Your task to perform on an android device: Open Amazon Image 0: 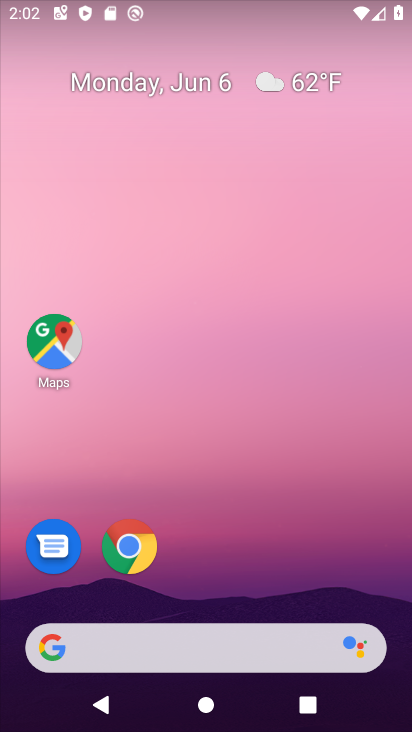
Step 0: click (132, 549)
Your task to perform on an android device: Open Amazon Image 1: 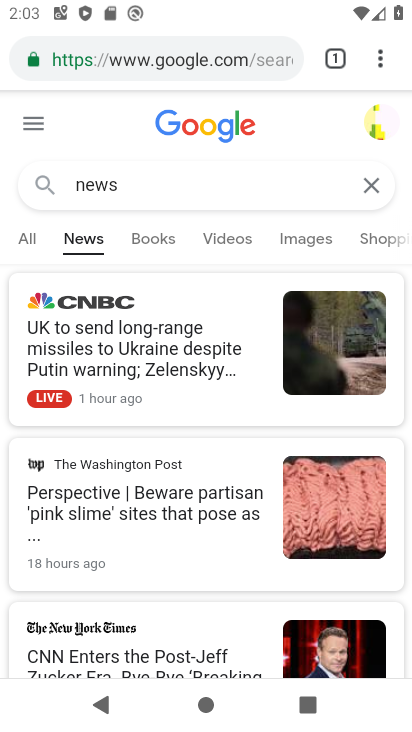
Step 1: click (193, 51)
Your task to perform on an android device: Open Amazon Image 2: 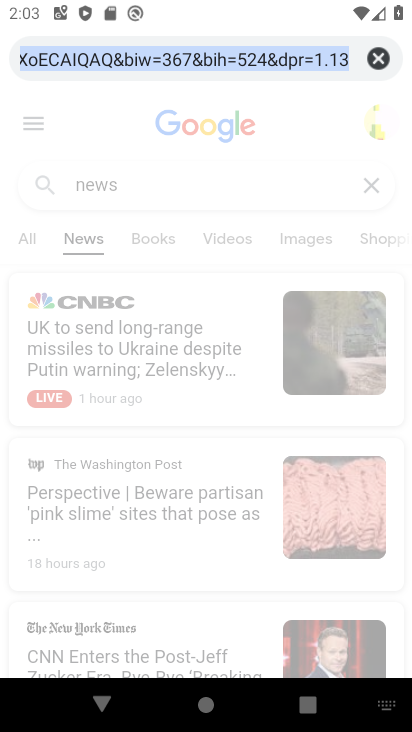
Step 2: type "amazon"
Your task to perform on an android device: Open Amazon Image 3: 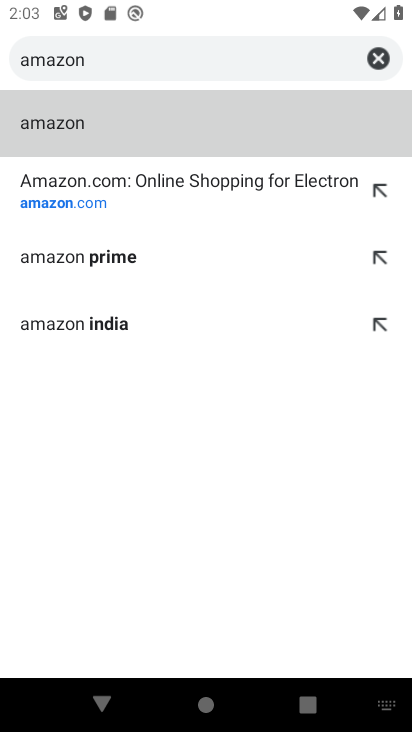
Step 3: click (96, 205)
Your task to perform on an android device: Open Amazon Image 4: 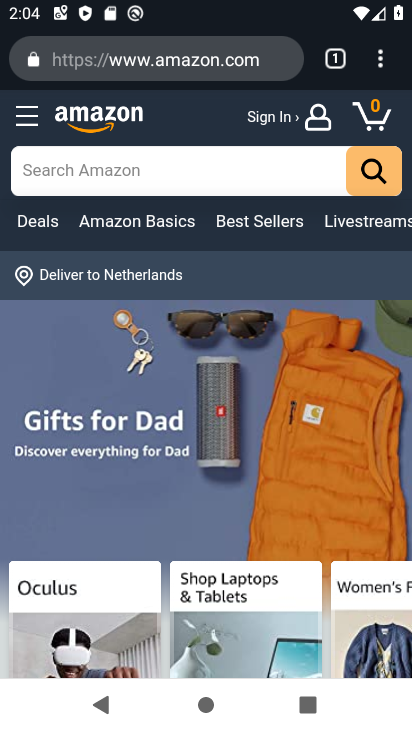
Step 4: task complete